Your task to perform on an android device: Search for the best rated book on Goodreads. Image 0: 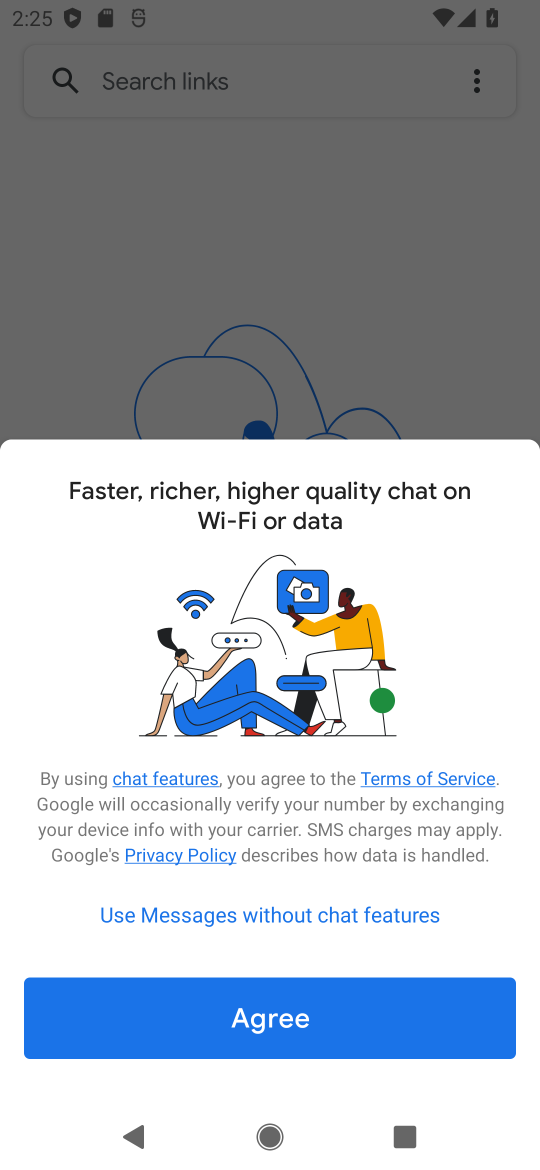
Step 0: press home button
Your task to perform on an android device: Search for the best rated book on Goodreads. Image 1: 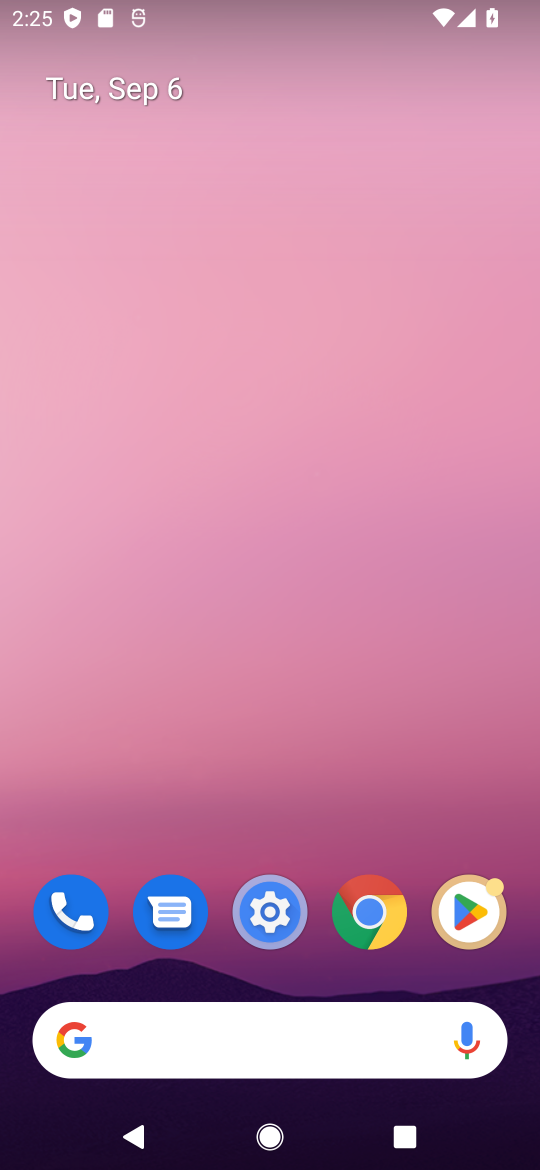
Step 1: drag from (234, 953) to (318, 121)
Your task to perform on an android device: Search for the best rated book on Goodreads. Image 2: 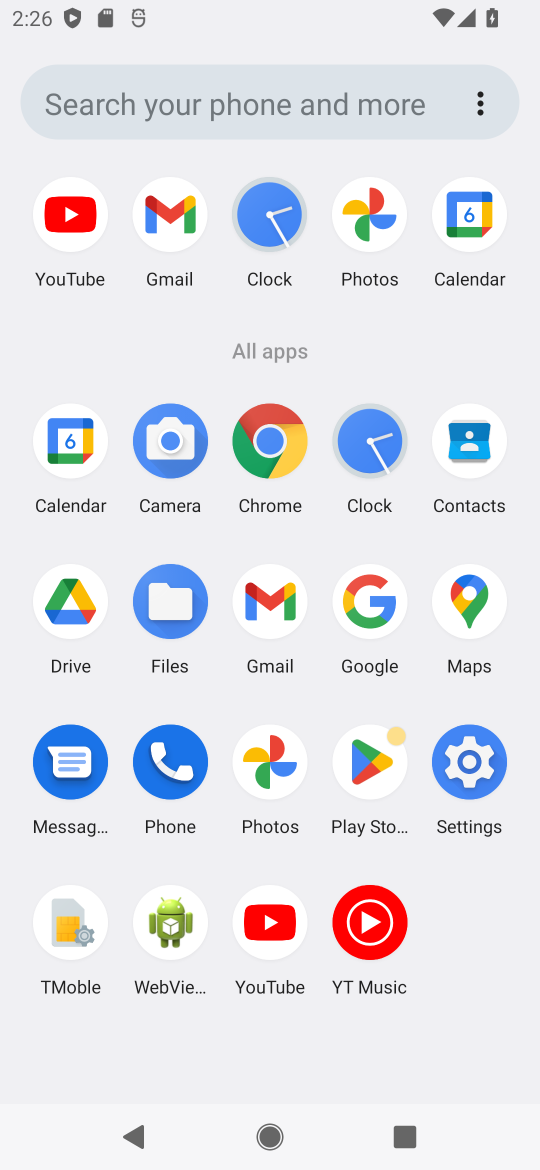
Step 2: click (278, 444)
Your task to perform on an android device: Search for the best rated book on Goodreads. Image 3: 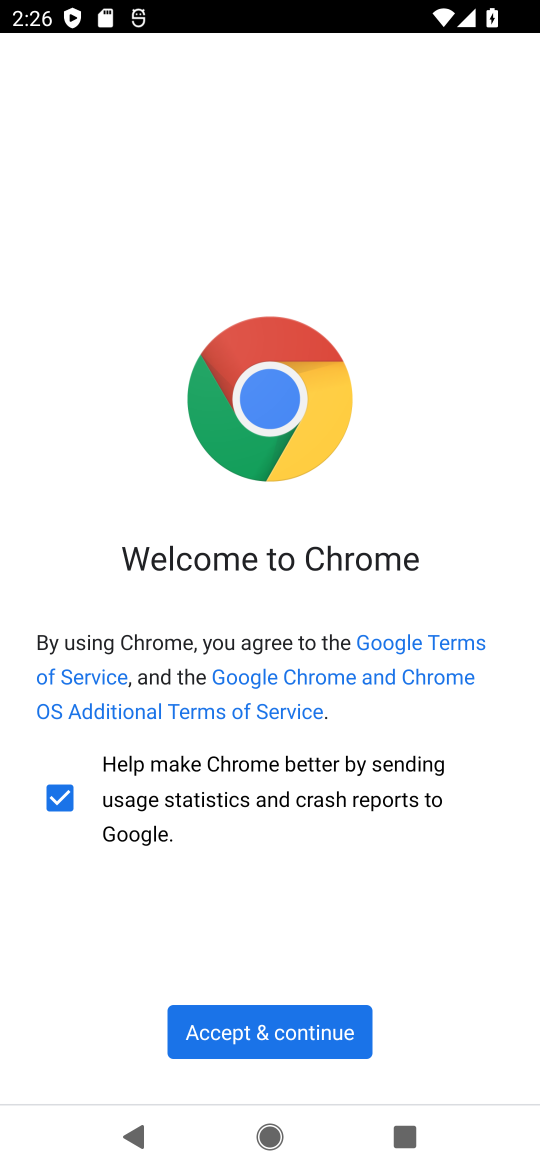
Step 3: click (323, 1034)
Your task to perform on an android device: Search for the best rated book on Goodreads. Image 4: 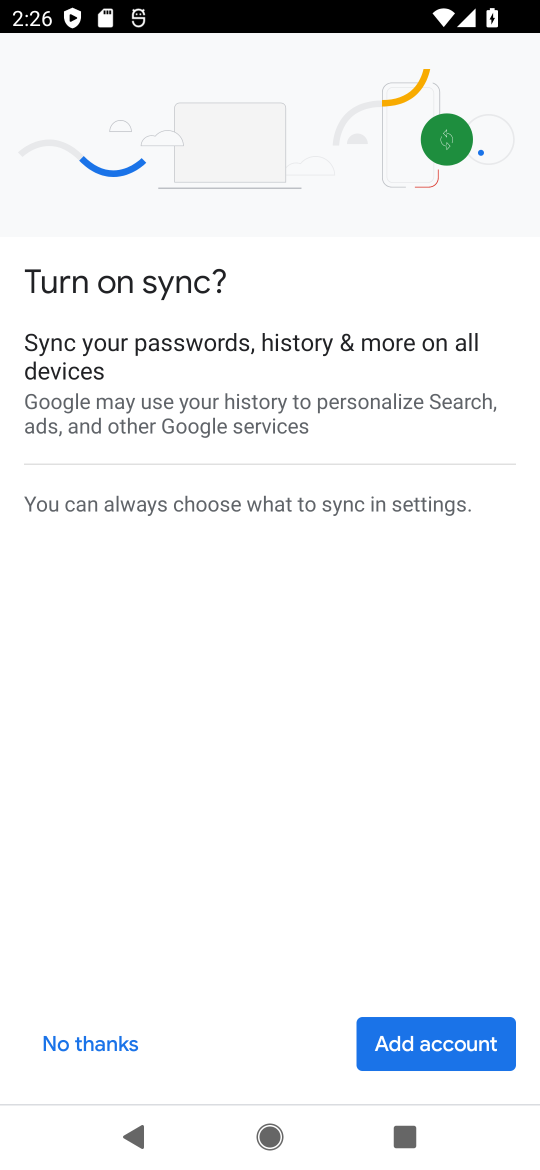
Step 4: click (453, 1040)
Your task to perform on an android device: Search for the best rated book on Goodreads. Image 5: 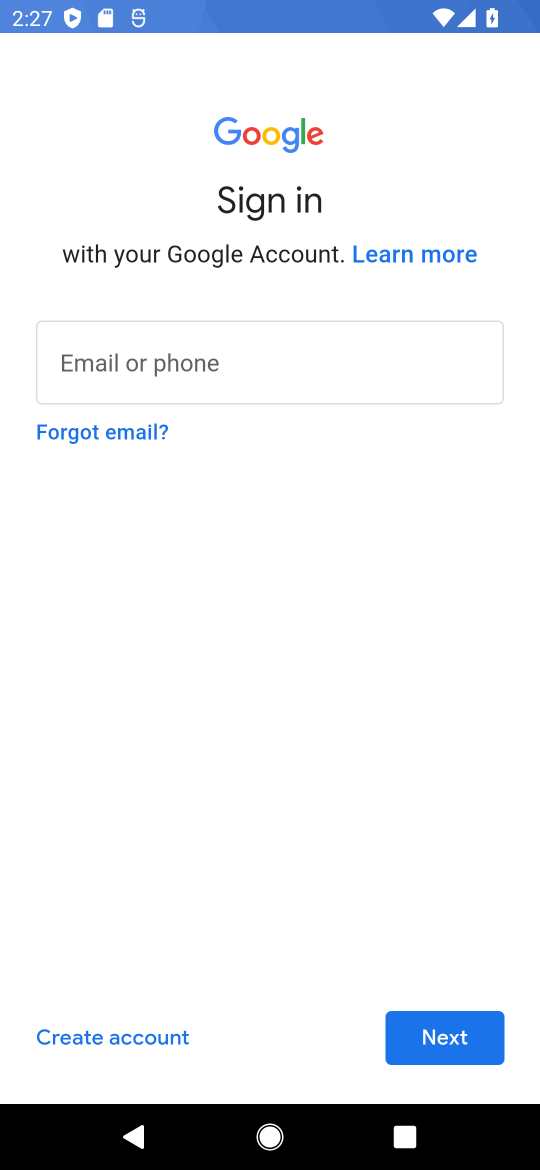
Step 5: click (451, 1029)
Your task to perform on an android device: Search for the best rated book on Goodreads. Image 6: 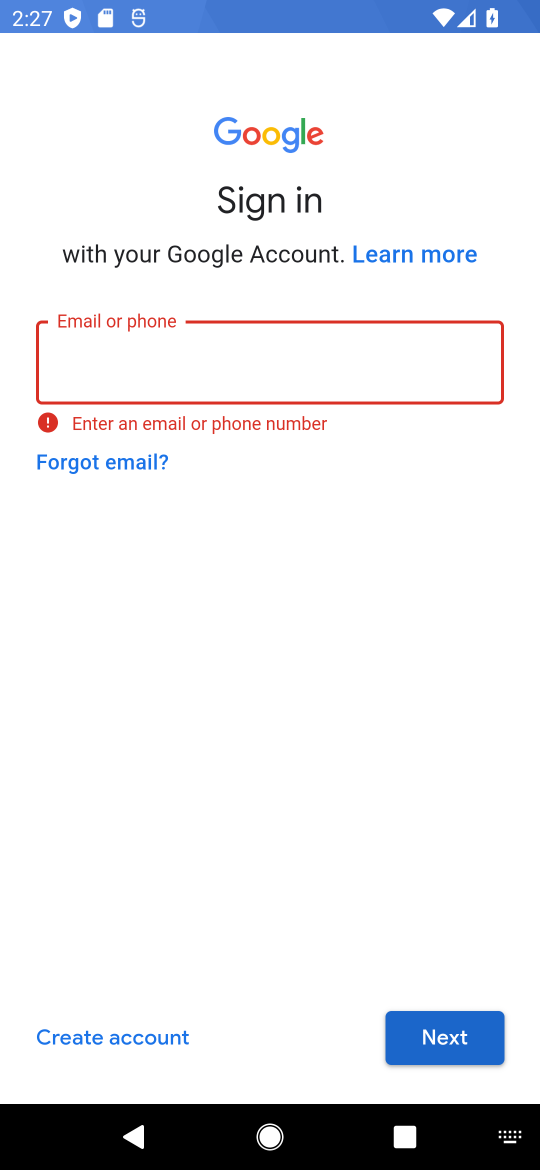
Step 6: click (437, 1019)
Your task to perform on an android device: Search for the best rated book on Goodreads. Image 7: 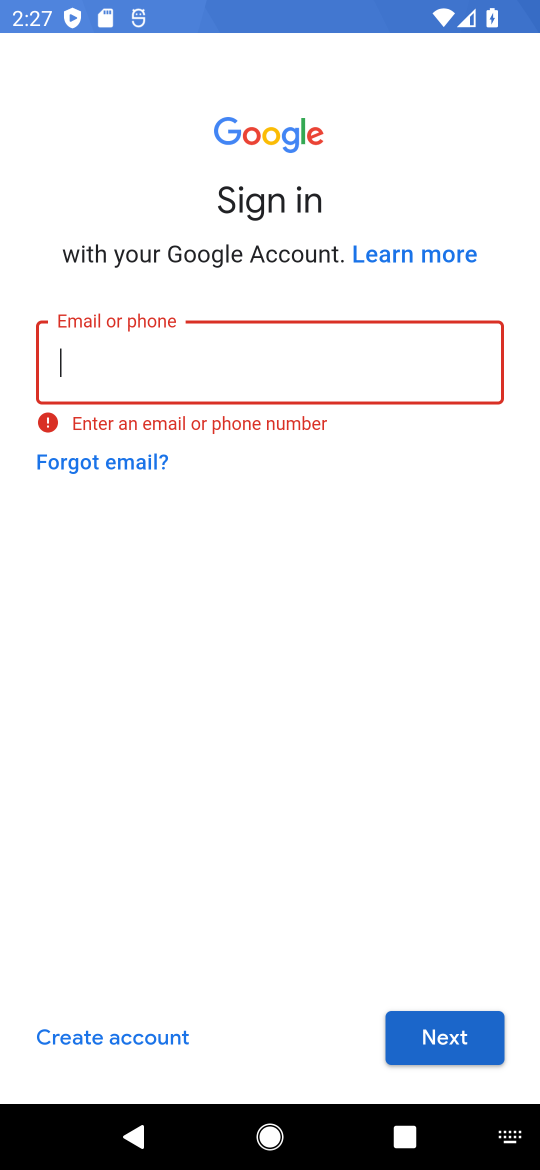
Step 7: task complete